Your task to perform on an android device: Show me popular games on the Play Store Image 0: 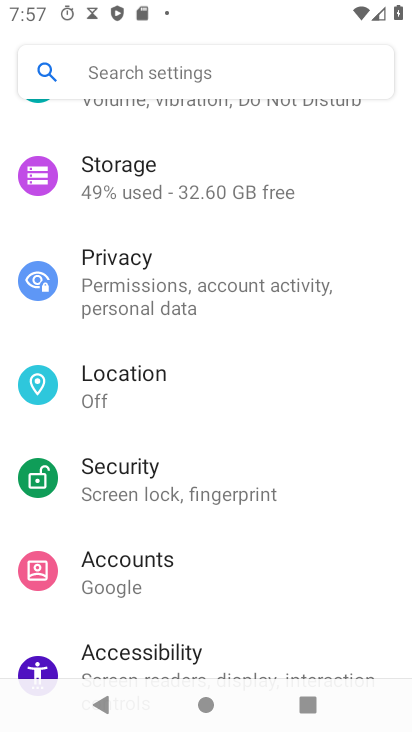
Step 0: press home button
Your task to perform on an android device: Show me popular games on the Play Store Image 1: 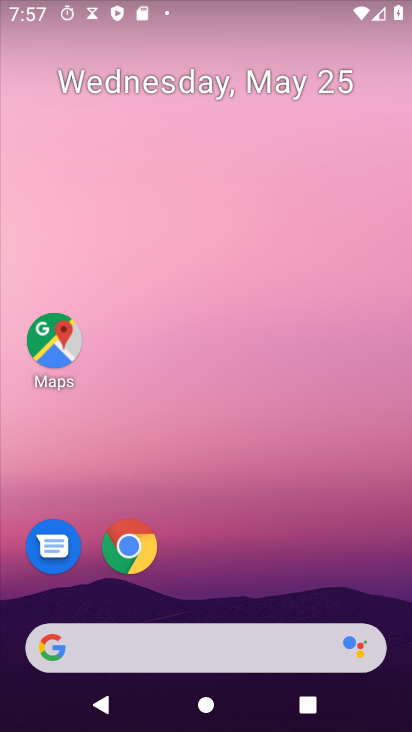
Step 1: drag from (214, 563) to (139, 36)
Your task to perform on an android device: Show me popular games on the Play Store Image 2: 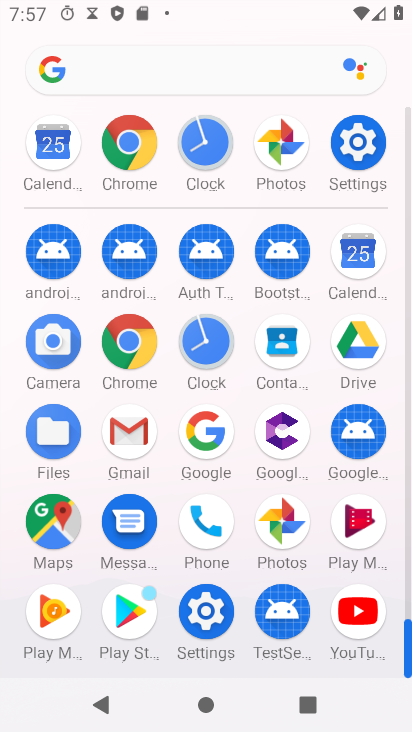
Step 2: click (138, 633)
Your task to perform on an android device: Show me popular games on the Play Store Image 3: 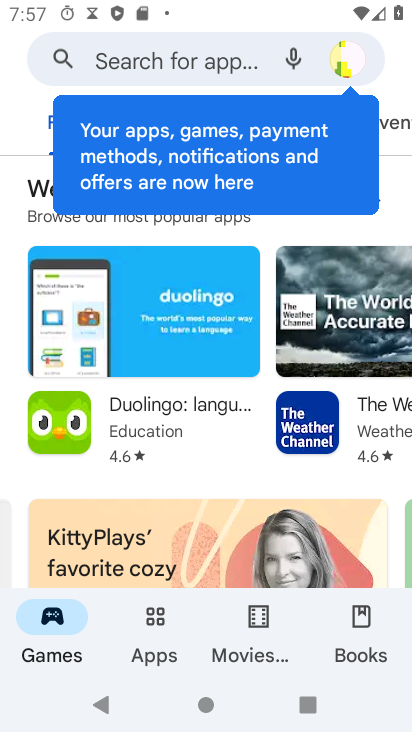
Step 3: task complete